Your task to perform on an android device: open a bookmark in the chrome app Image 0: 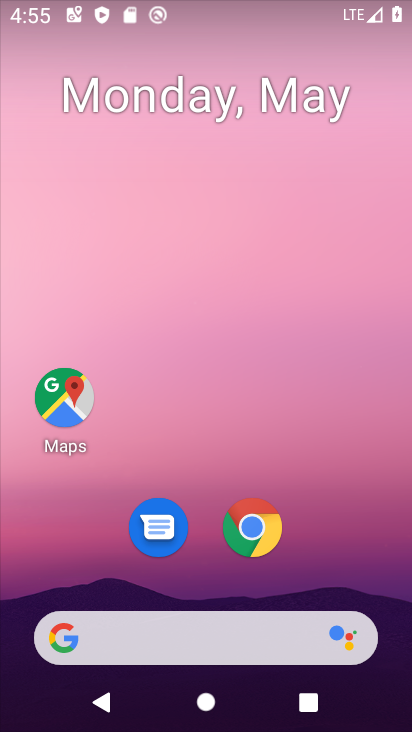
Step 0: click (252, 528)
Your task to perform on an android device: open a bookmark in the chrome app Image 1: 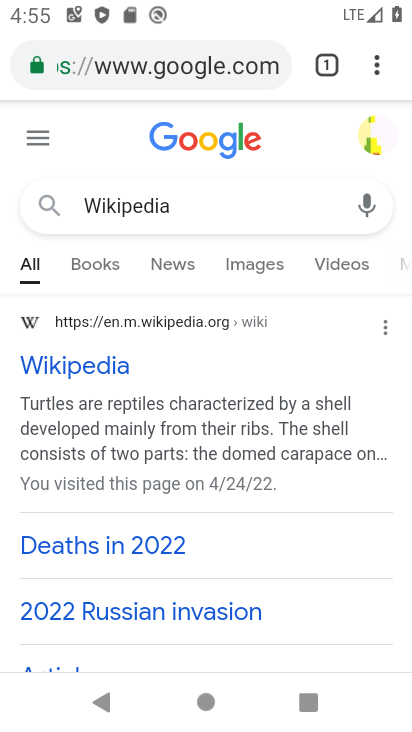
Step 1: click (374, 61)
Your task to perform on an android device: open a bookmark in the chrome app Image 2: 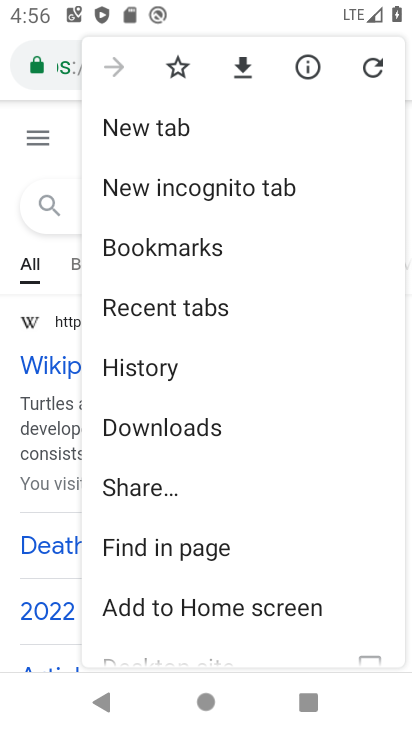
Step 2: click (156, 240)
Your task to perform on an android device: open a bookmark in the chrome app Image 3: 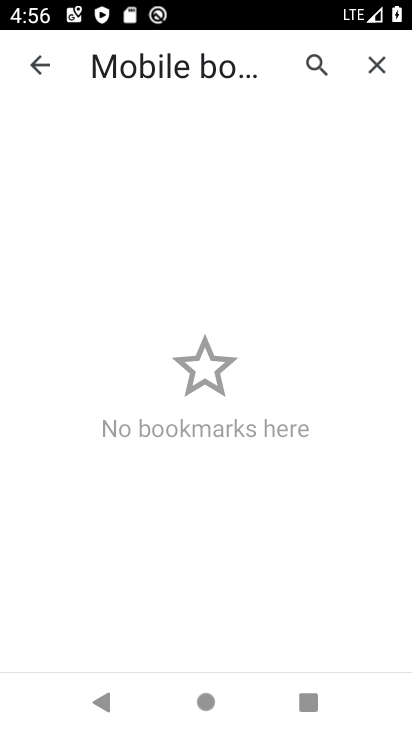
Step 3: task complete